Your task to perform on an android device: What's the weather today? Image 0: 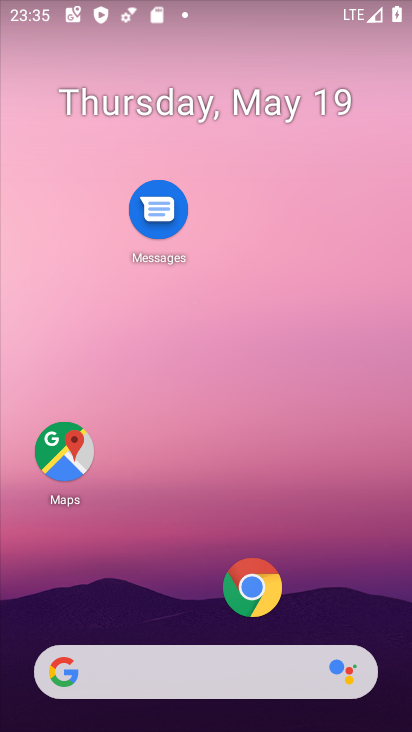
Step 0: click (191, 674)
Your task to perform on an android device: What's the weather today? Image 1: 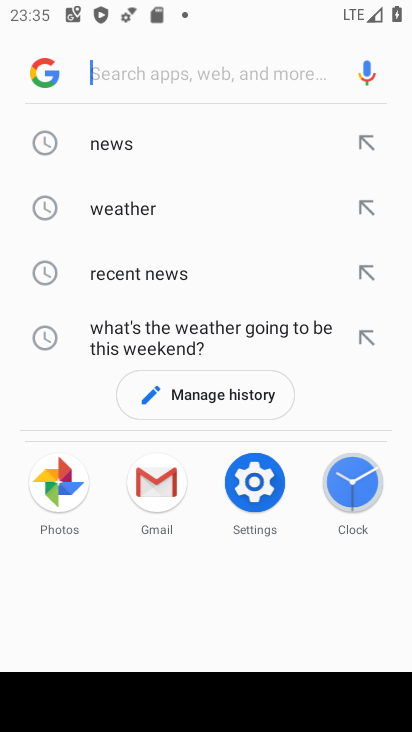
Step 1: click (191, 674)
Your task to perform on an android device: What's the weather today? Image 2: 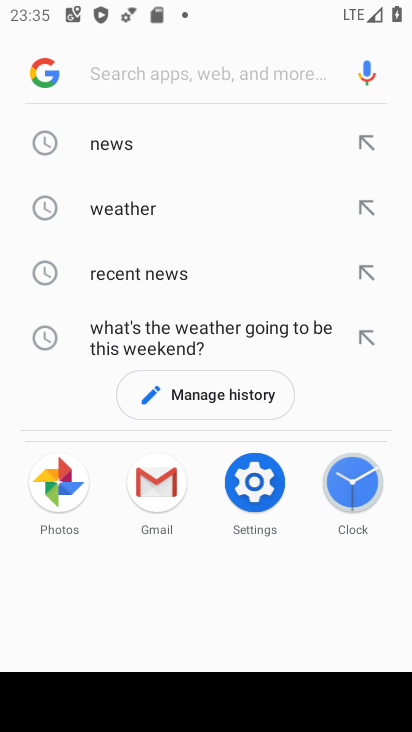
Step 2: click (116, 215)
Your task to perform on an android device: What's the weather today? Image 3: 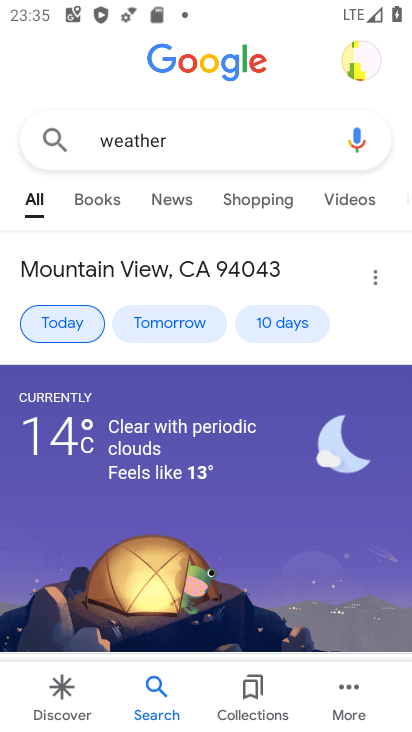
Step 3: task complete